Your task to perform on an android device: Go to Wikipedia Image 0: 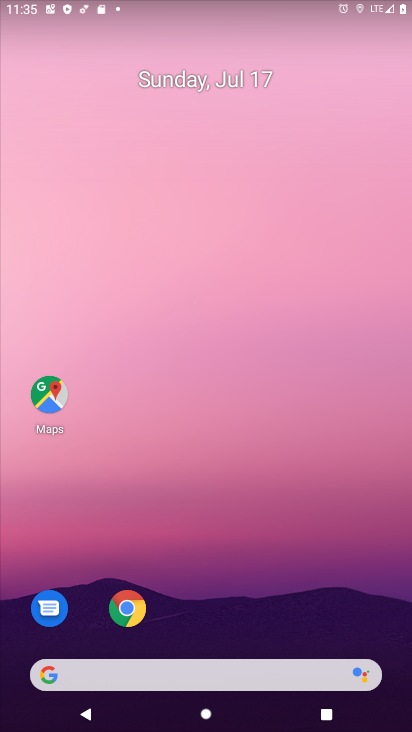
Step 0: drag from (185, 637) to (183, 50)
Your task to perform on an android device: Go to Wikipedia Image 1: 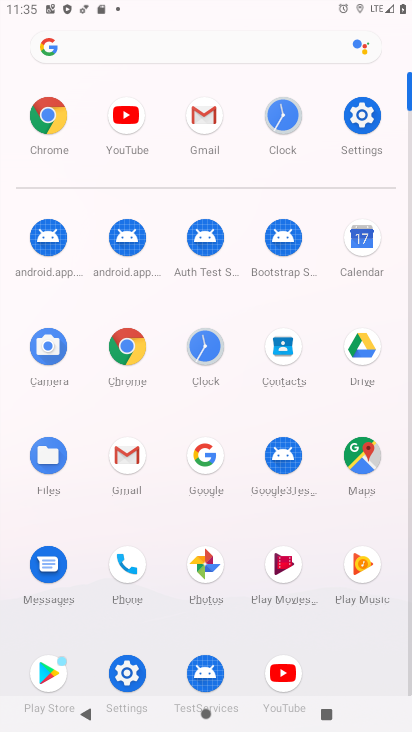
Step 1: click (133, 343)
Your task to perform on an android device: Go to Wikipedia Image 2: 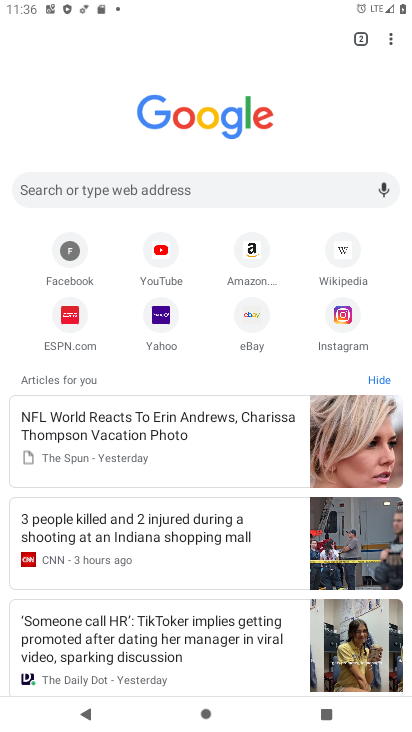
Step 2: click (340, 260)
Your task to perform on an android device: Go to Wikipedia Image 3: 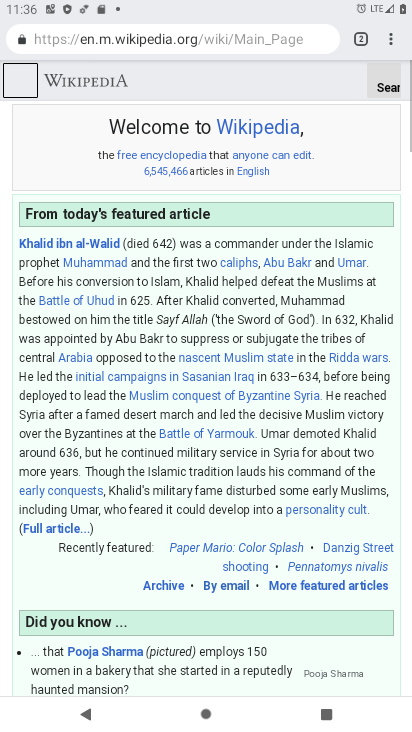
Step 3: task complete